Your task to perform on an android device: find which apps use the phone's location Image 0: 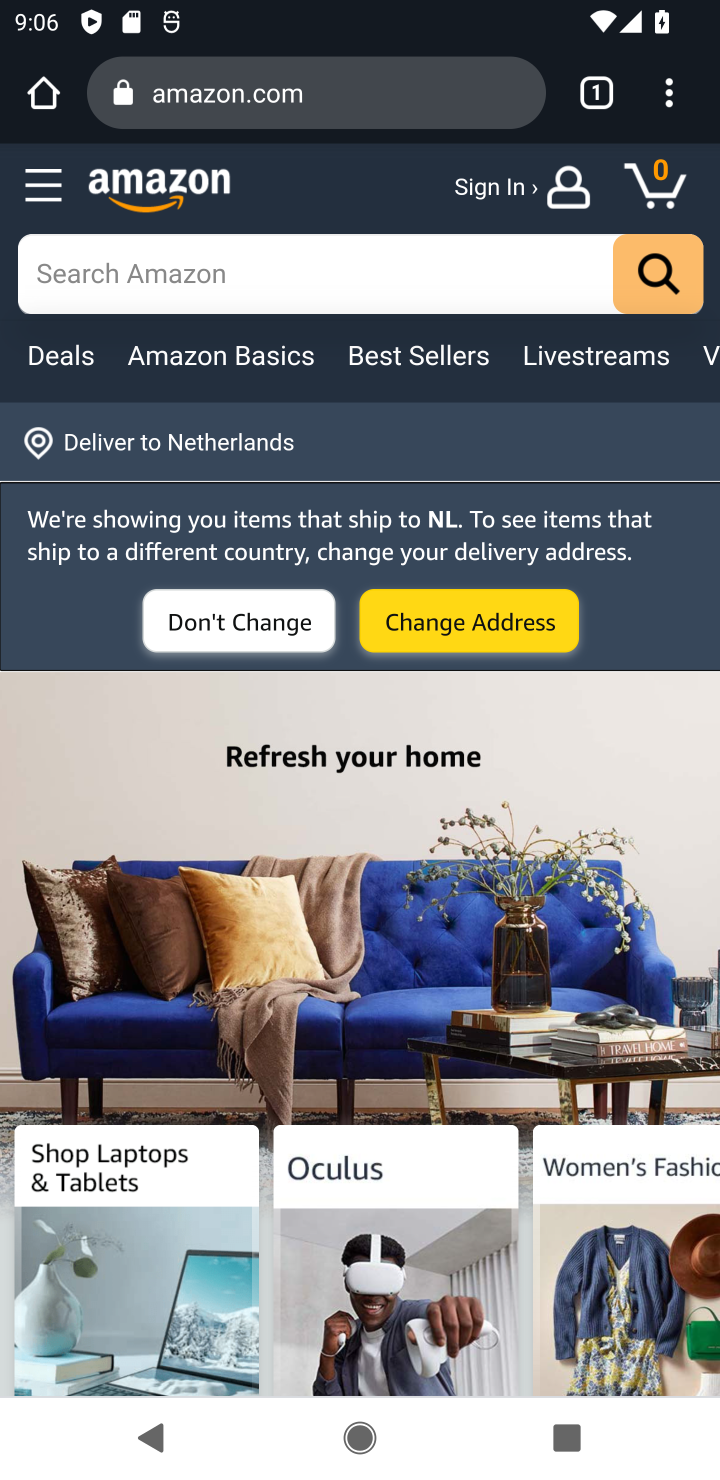
Step 0: press home button
Your task to perform on an android device: find which apps use the phone's location Image 1: 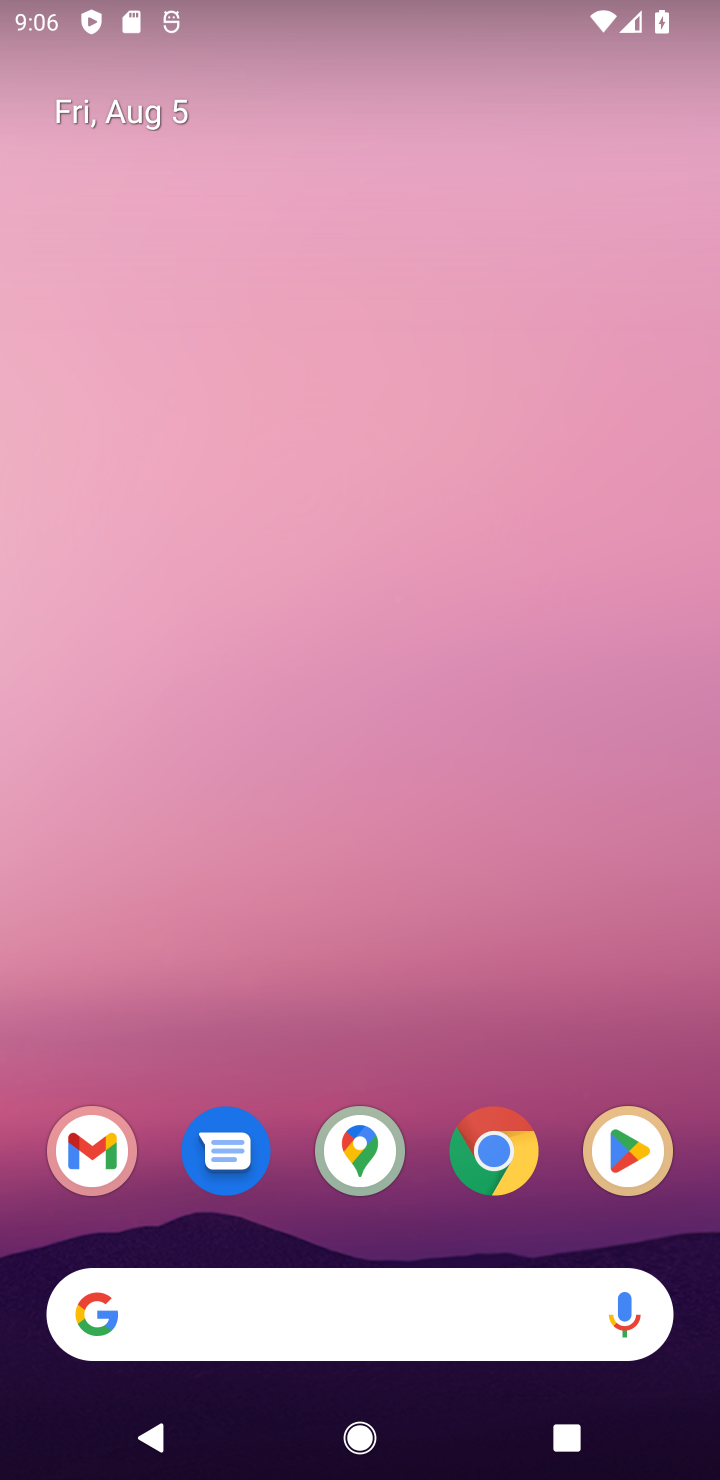
Step 1: click (356, 1140)
Your task to perform on an android device: find which apps use the phone's location Image 2: 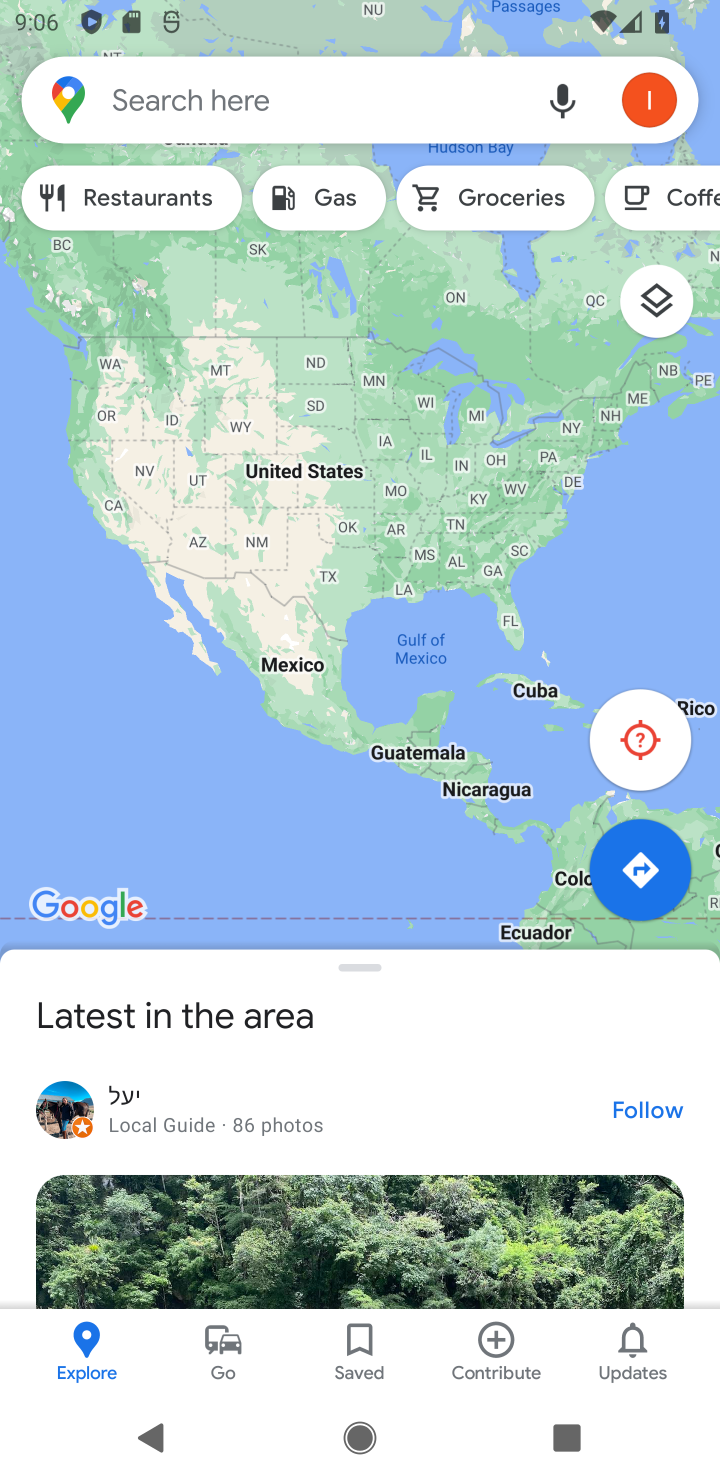
Step 2: press back button
Your task to perform on an android device: find which apps use the phone's location Image 3: 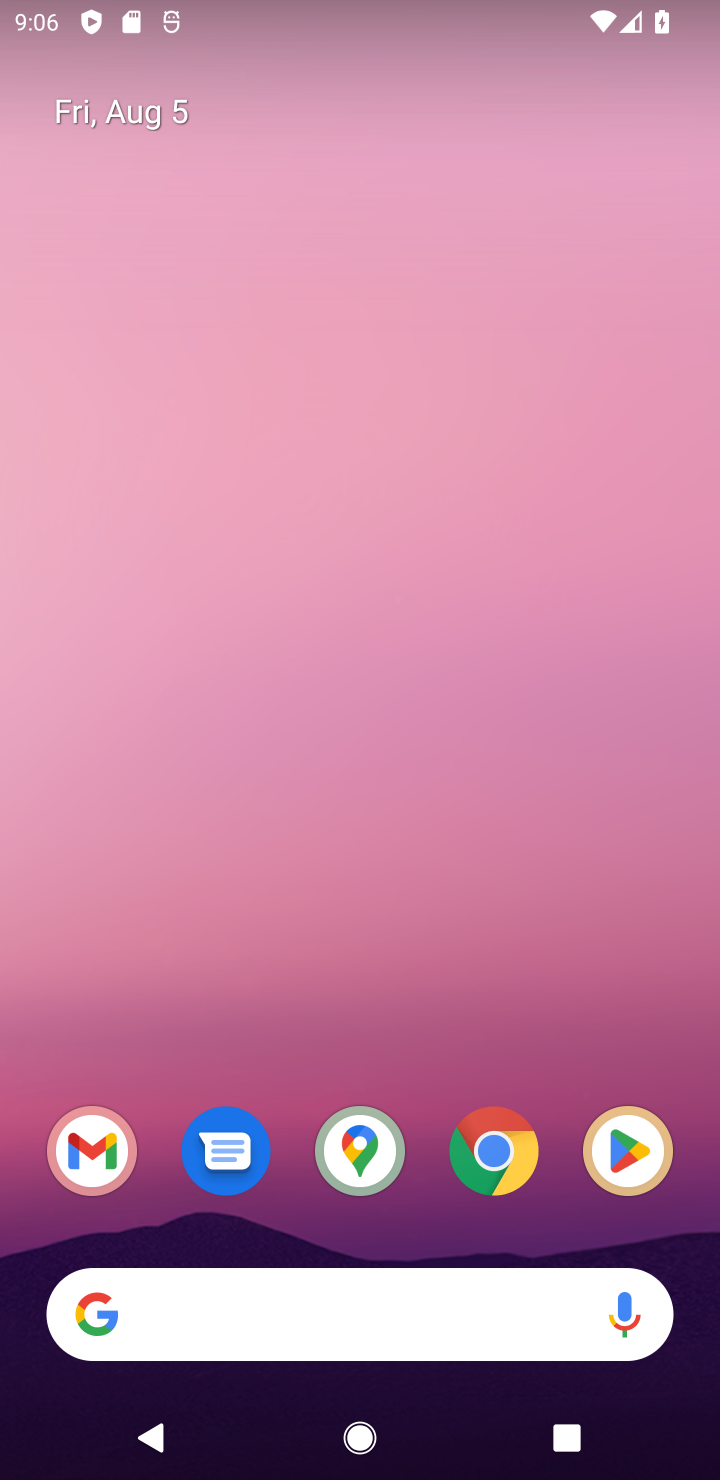
Step 3: drag from (345, 984) to (392, 475)
Your task to perform on an android device: find which apps use the phone's location Image 4: 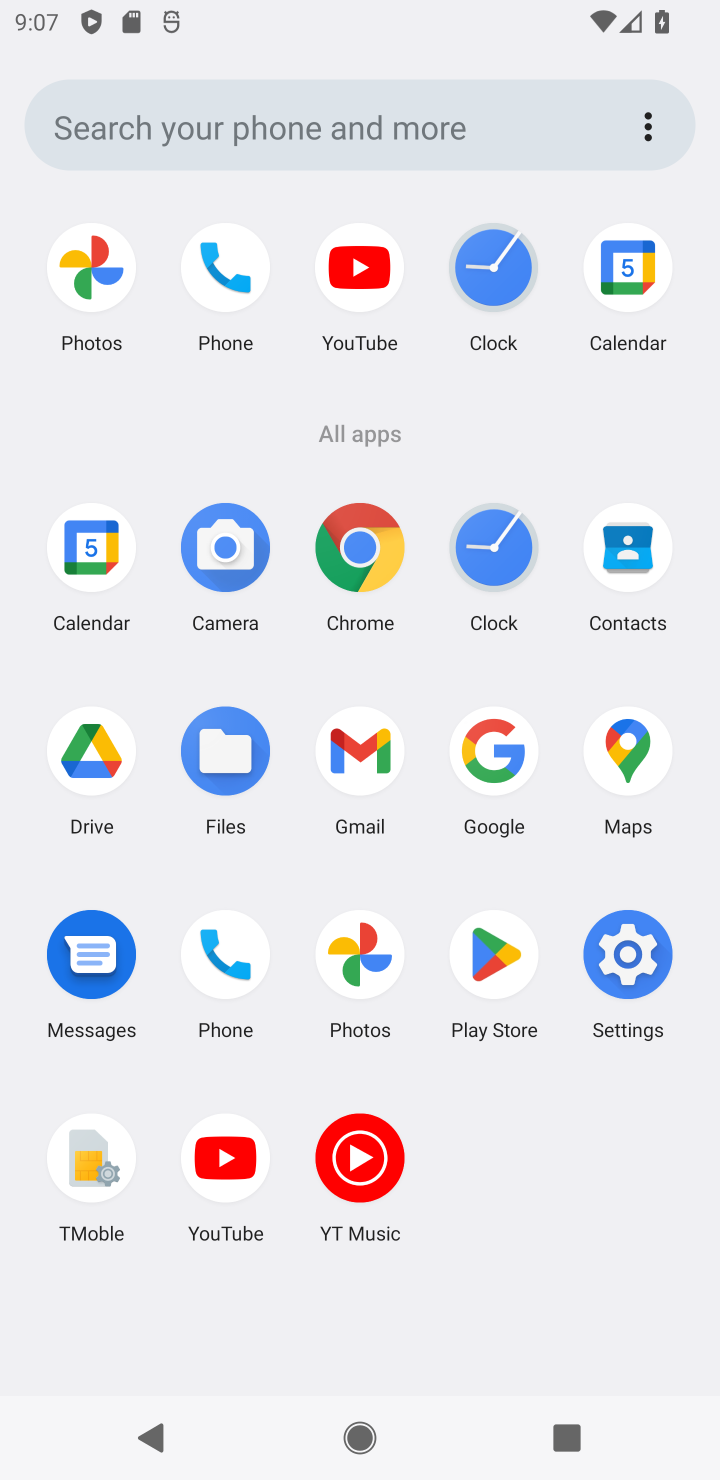
Step 4: click (392, 475)
Your task to perform on an android device: find which apps use the phone's location Image 5: 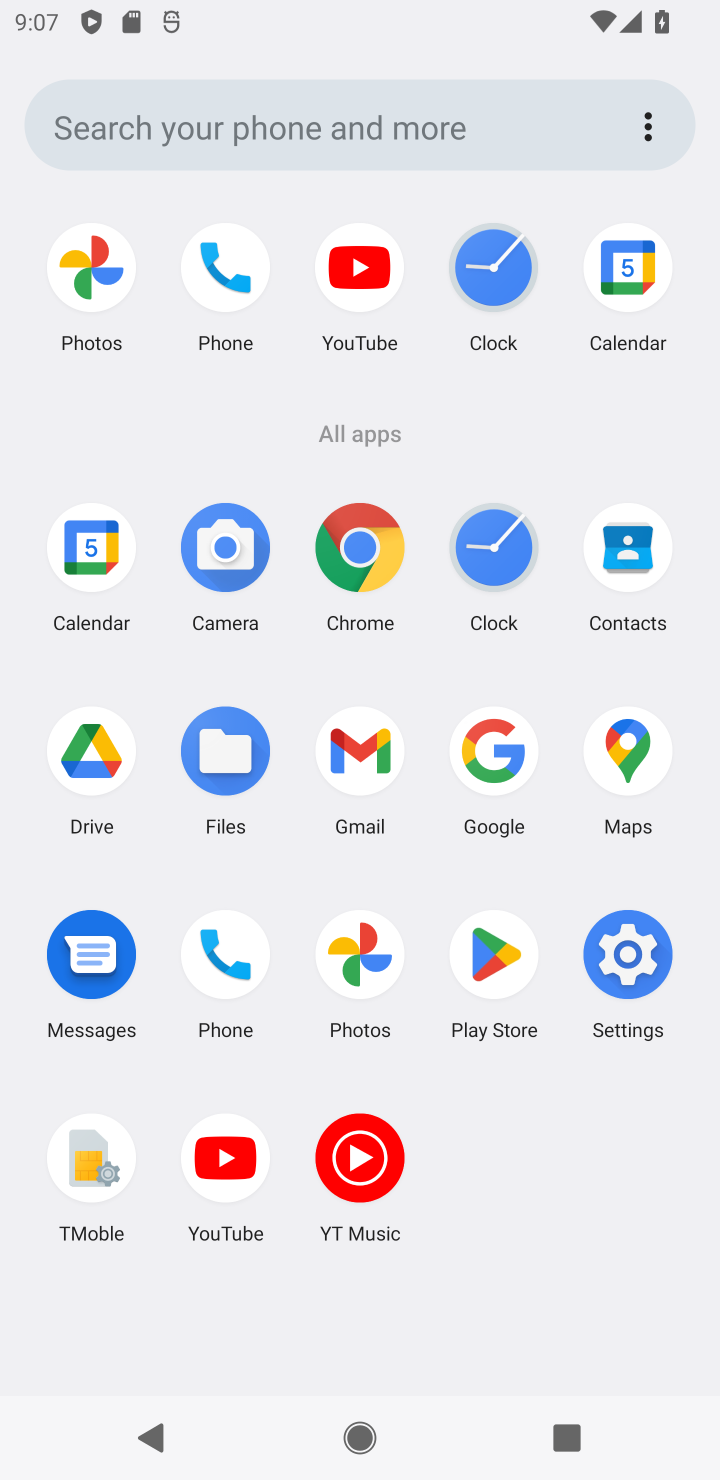
Step 5: click (636, 951)
Your task to perform on an android device: find which apps use the phone's location Image 6: 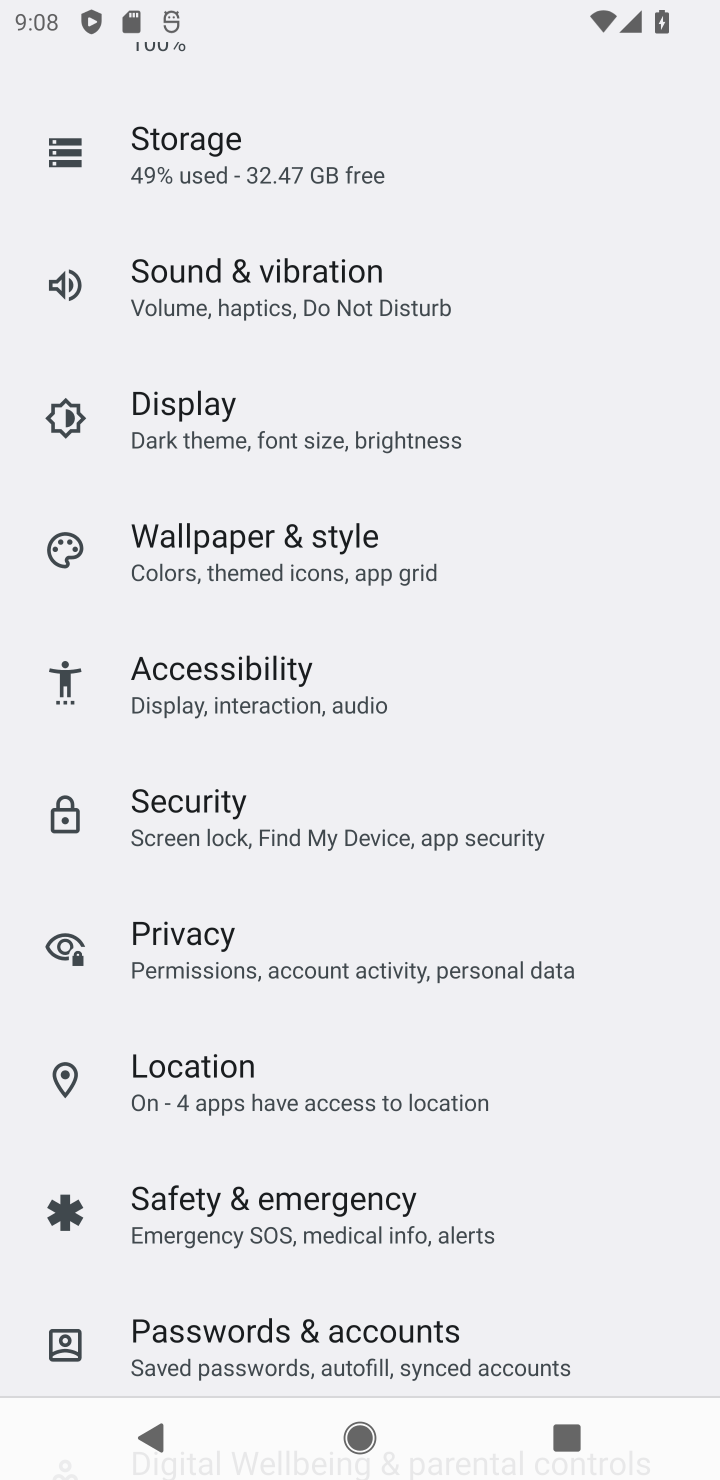
Step 6: click (165, 1093)
Your task to perform on an android device: find which apps use the phone's location Image 7: 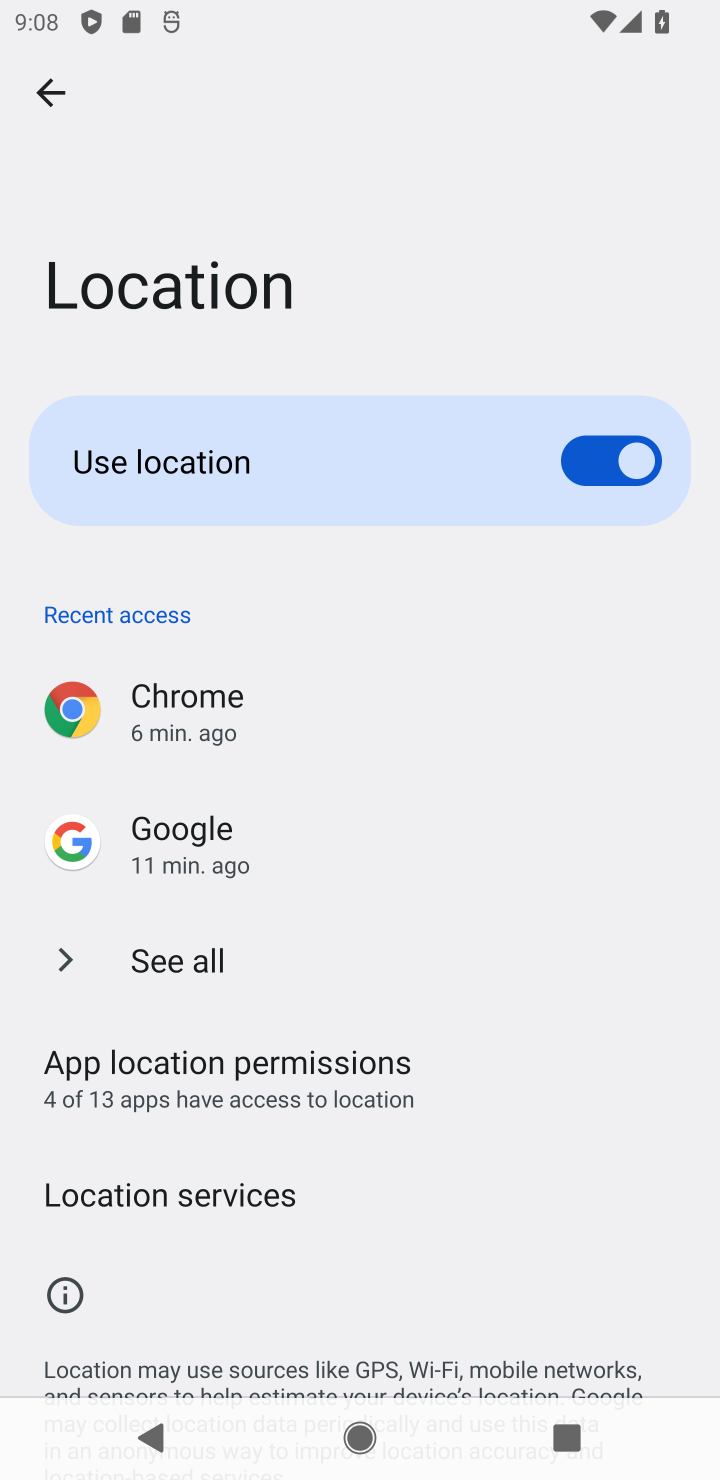
Step 7: click (306, 1083)
Your task to perform on an android device: find which apps use the phone's location Image 8: 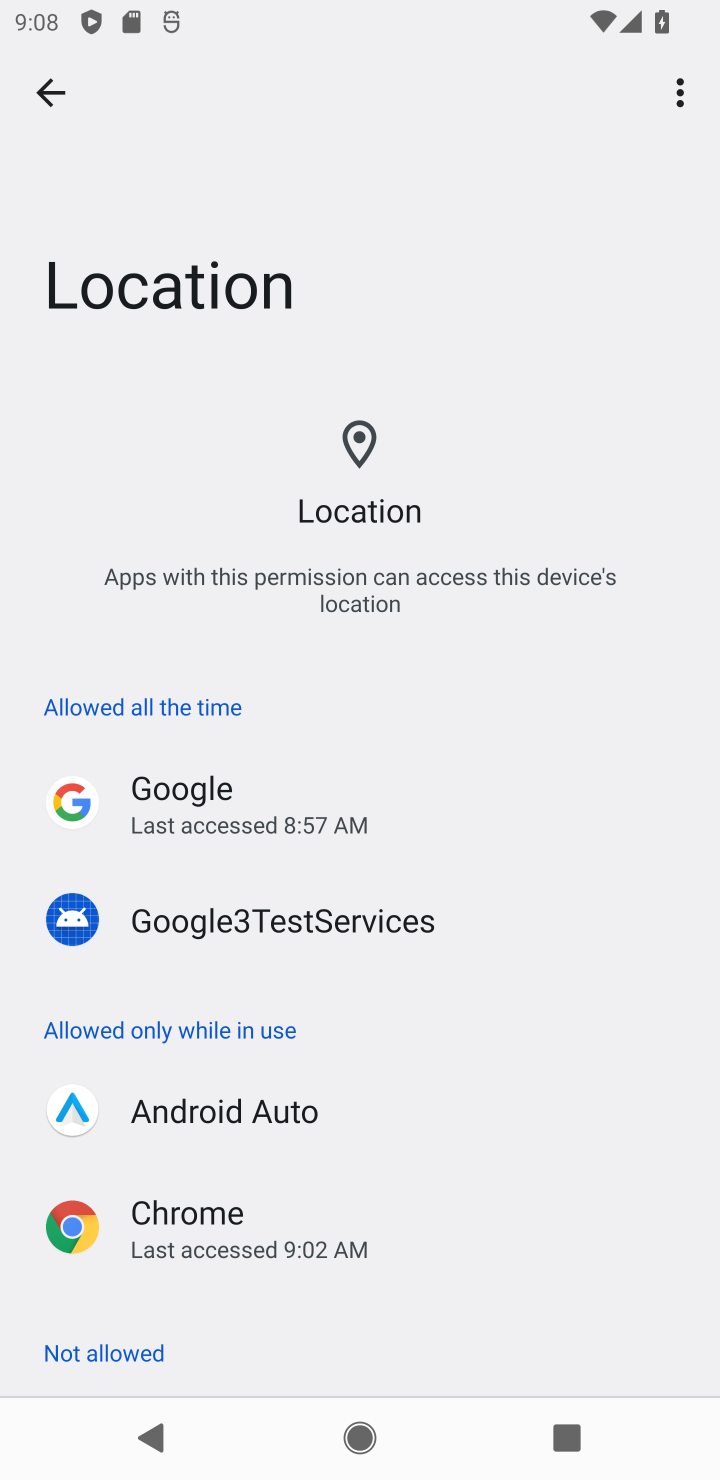
Step 8: task complete